Your task to perform on an android device: Clear all items from cart on bestbuy.com. Add logitech g933 to the cart on bestbuy.com Image 0: 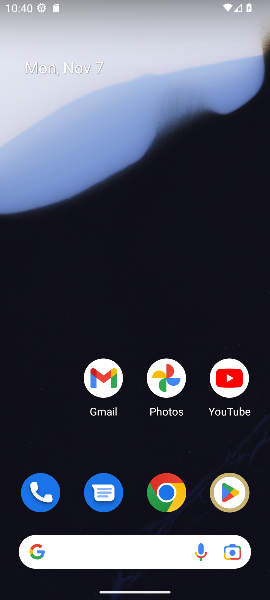
Step 0: drag from (135, 460) to (136, 88)
Your task to perform on an android device: Clear all items from cart on bestbuy.com. Add logitech g933 to the cart on bestbuy.com Image 1: 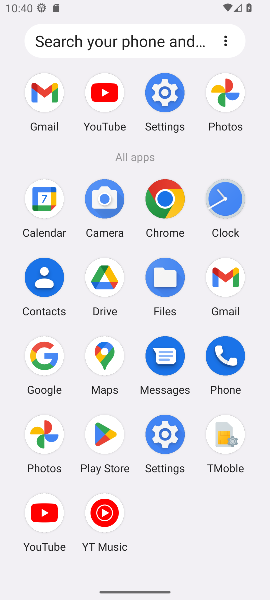
Step 1: click (159, 196)
Your task to perform on an android device: Clear all items from cart on bestbuy.com. Add logitech g933 to the cart on bestbuy.com Image 2: 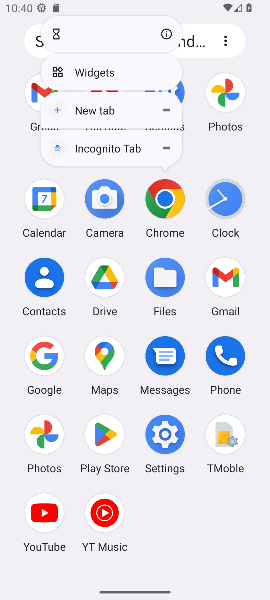
Step 2: click (166, 201)
Your task to perform on an android device: Clear all items from cart on bestbuy.com. Add logitech g933 to the cart on bestbuy.com Image 3: 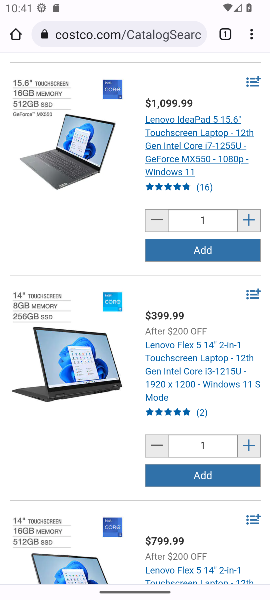
Step 3: click (150, 32)
Your task to perform on an android device: Clear all items from cart on bestbuy.com. Add logitech g933 to the cart on bestbuy.com Image 4: 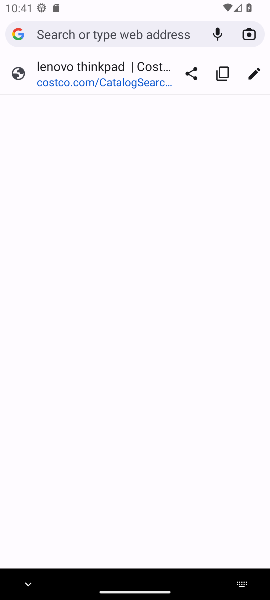
Step 4: type "bestbuy.com"
Your task to perform on an android device: Clear all items from cart on bestbuy.com. Add logitech g933 to the cart on bestbuy.com Image 5: 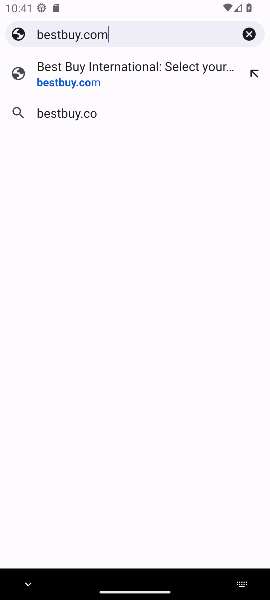
Step 5: press enter
Your task to perform on an android device: Clear all items from cart on bestbuy.com. Add logitech g933 to the cart on bestbuy.com Image 6: 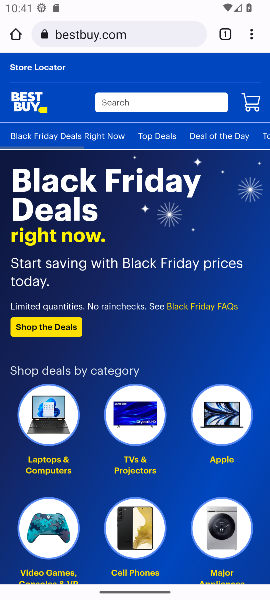
Step 6: click (248, 102)
Your task to perform on an android device: Clear all items from cart on bestbuy.com. Add logitech g933 to the cart on bestbuy.com Image 7: 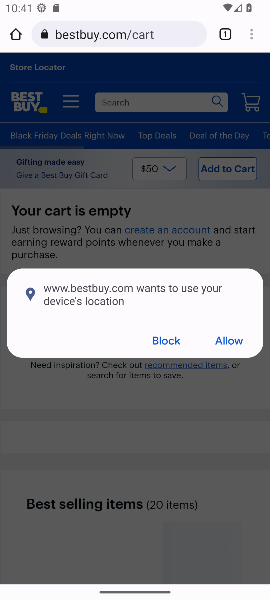
Step 7: click (167, 340)
Your task to perform on an android device: Clear all items from cart on bestbuy.com. Add logitech g933 to the cart on bestbuy.com Image 8: 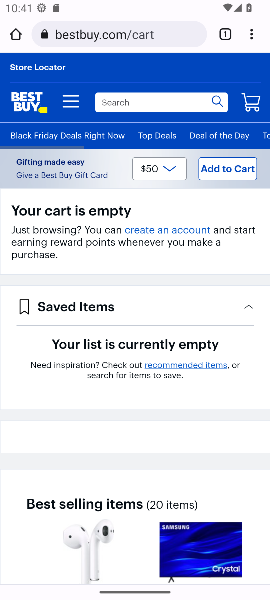
Step 8: click (176, 102)
Your task to perform on an android device: Clear all items from cart on bestbuy.com. Add logitech g933 to the cart on bestbuy.com Image 9: 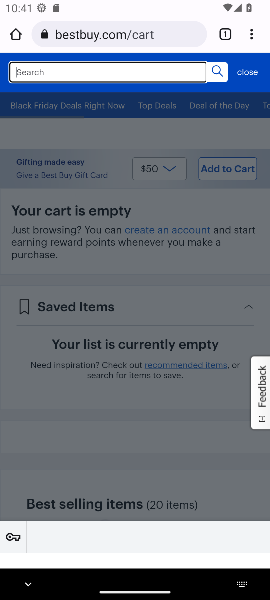
Step 9: type "add logitech g933"
Your task to perform on an android device: Clear all items from cart on bestbuy.com. Add logitech g933 to the cart on bestbuy.com Image 10: 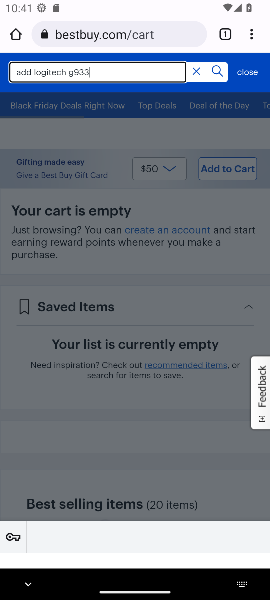
Step 10: press enter
Your task to perform on an android device: Clear all items from cart on bestbuy.com. Add logitech g933 to the cart on bestbuy.com Image 11: 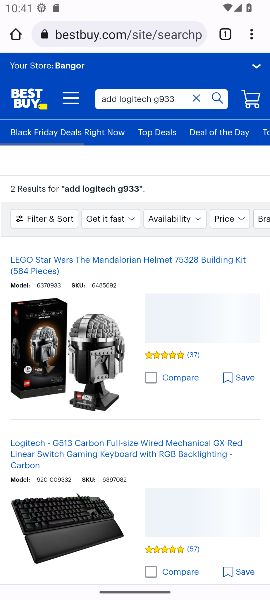
Step 11: click (200, 96)
Your task to perform on an android device: Clear all items from cart on bestbuy.com. Add logitech g933 to the cart on bestbuy.com Image 12: 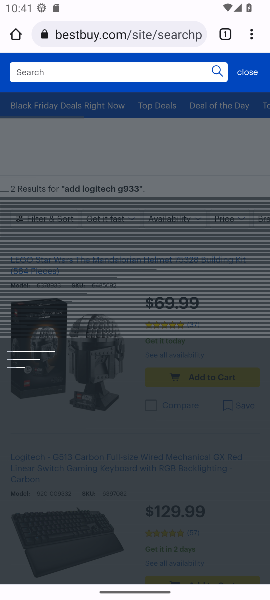
Step 12: click (122, 69)
Your task to perform on an android device: Clear all items from cart on bestbuy.com. Add logitech g933 to the cart on bestbuy.com Image 13: 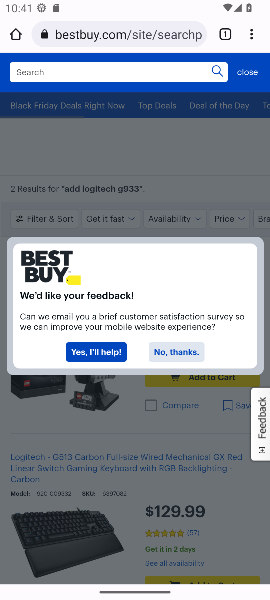
Step 13: click (184, 347)
Your task to perform on an android device: Clear all items from cart on bestbuy.com. Add logitech g933 to the cart on bestbuy.com Image 14: 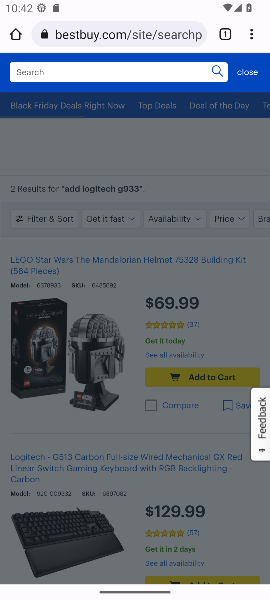
Step 14: click (131, 62)
Your task to perform on an android device: Clear all items from cart on bestbuy.com. Add logitech g933 to the cart on bestbuy.com Image 15: 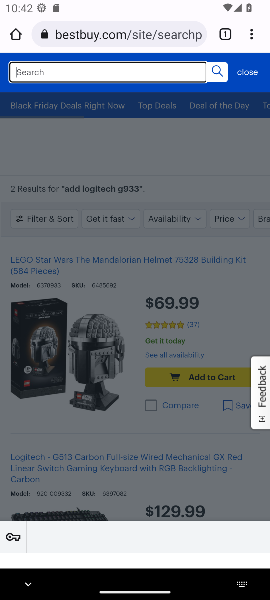
Step 15: type "logitech g933"
Your task to perform on an android device: Clear all items from cart on bestbuy.com. Add logitech g933 to the cart on bestbuy.com Image 16: 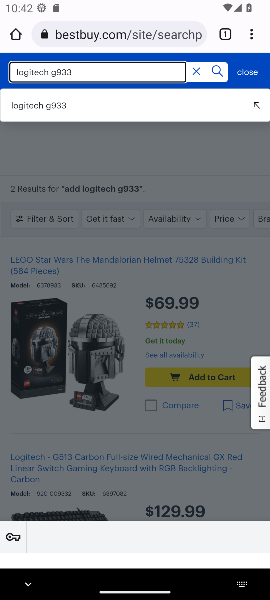
Step 16: press enter
Your task to perform on an android device: Clear all items from cart on bestbuy.com. Add logitech g933 to the cart on bestbuy.com Image 17: 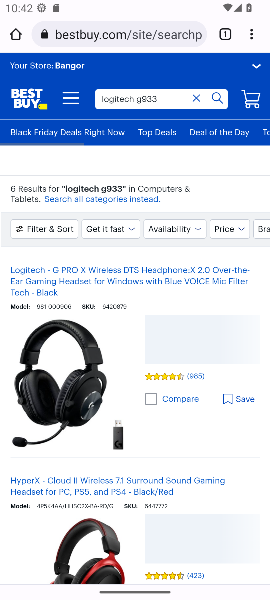
Step 17: task complete